Your task to perform on an android device: toggle improve location accuracy Image 0: 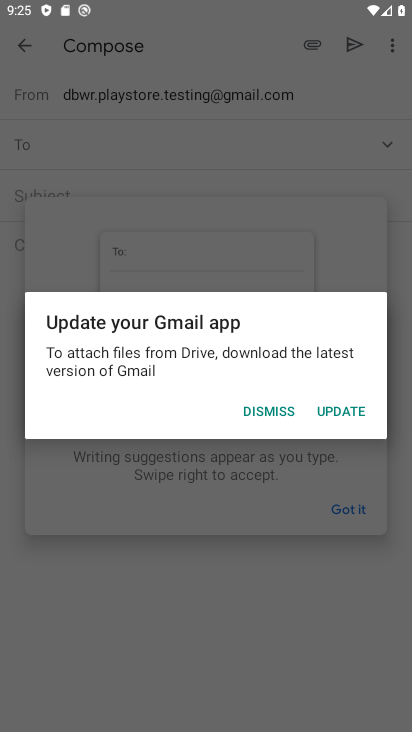
Step 0: press home button
Your task to perform on an android device: toggle improve location accuracy Image 1: 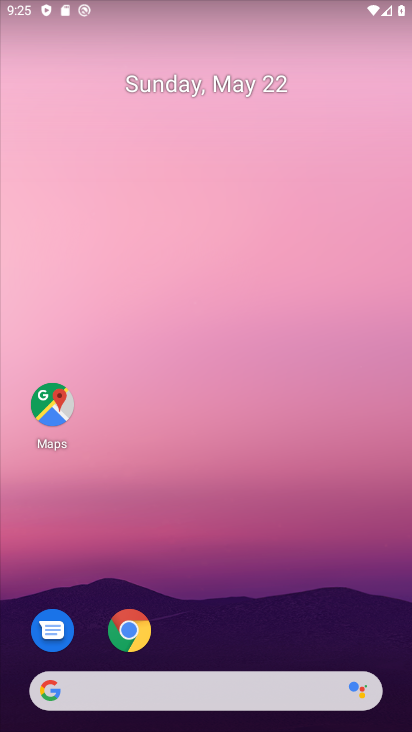
Step 1: drag from (377, 627) to (342, 231)
Your task to perform on an android device: toggle improve location accuracy Image 2: 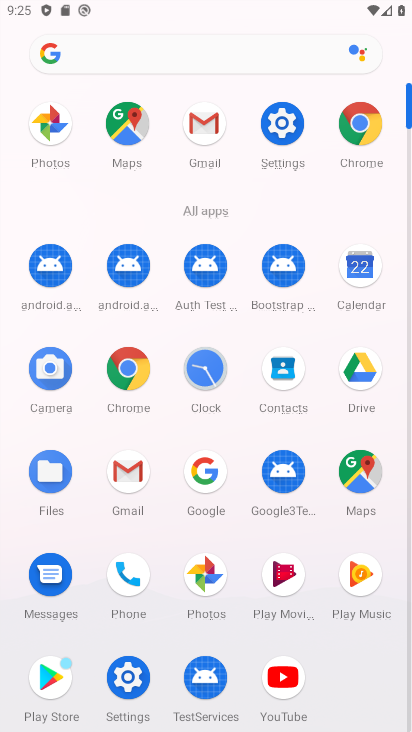
Step 2: click (145, 687)
Your task to perform on an android device: toggle improve location accuracy Image 3: 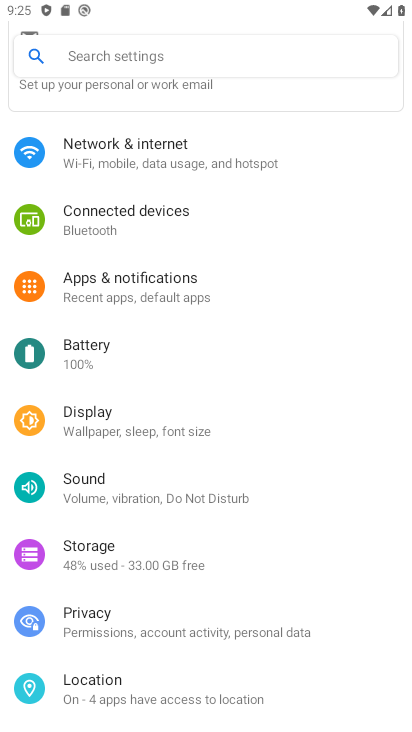
Step 3: drag from (322, 396) to (322, 522)
Your task to perform on an android device: toggle improve location accuracy Image 4: 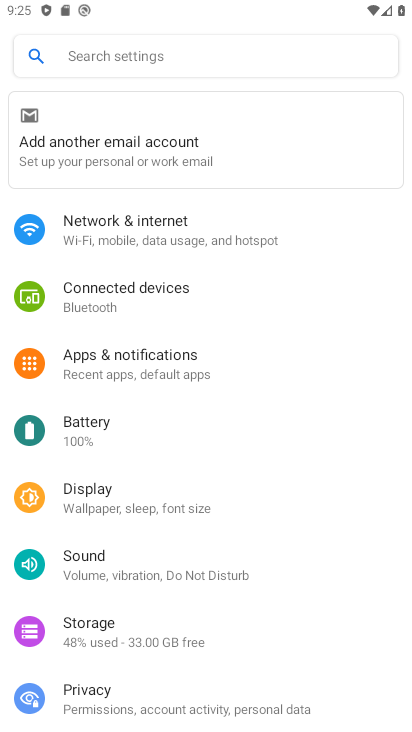
Step 4: drag from (334, 380) to (336, 467)
Your task to perform on an android device: toggle improve location accuracy Image 5: 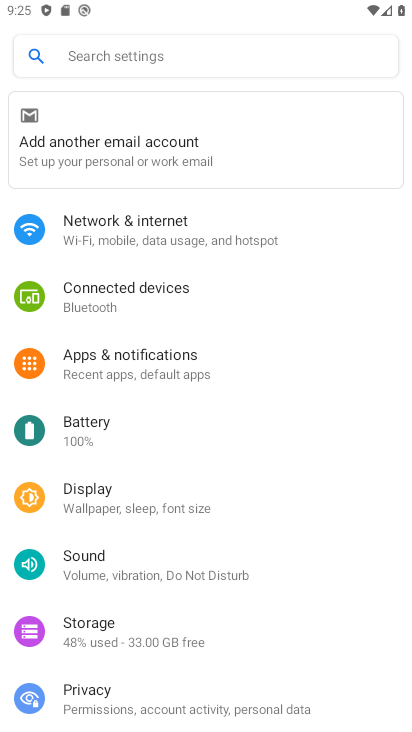
Step 5: drag from (339, 360) to (337, 475)
Your task to perform on an android device: toggle improve location accuracy Image 6: 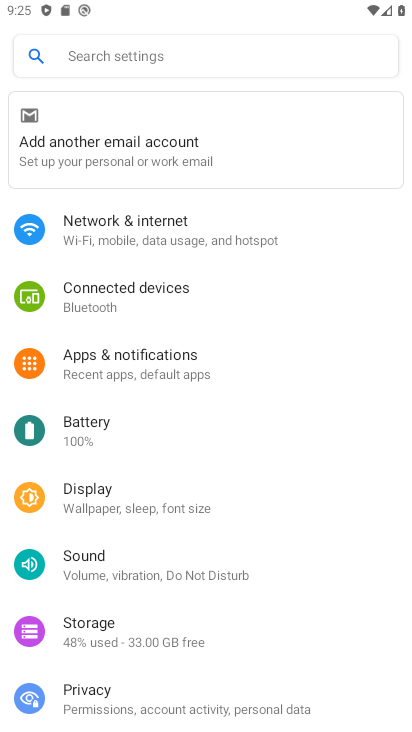
Step 6: drag from (341, 590) to (347, 466)
Your task to perform on an android device: toggle improve location accuracy Image 7: 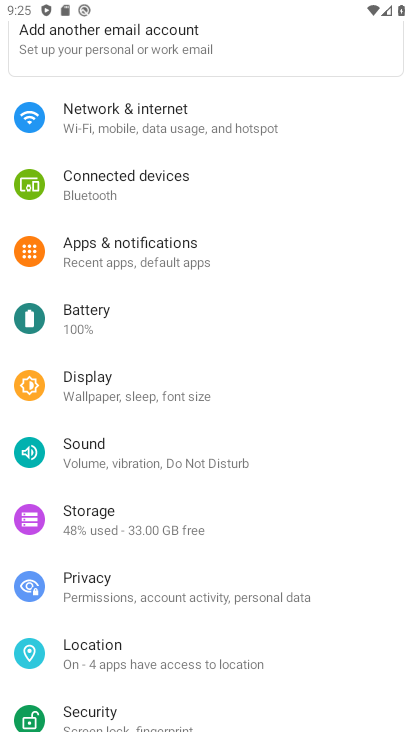
Step 7: drag from (342, 514) to (349, 402)
Your task to perform on an android device: toggle improve location accuracy Image 8: 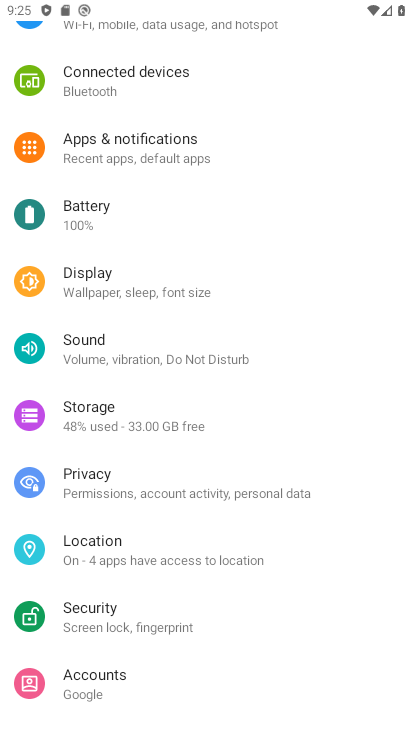
Step 8: drag from (358, 540) to (362, 440)
Your task to perform on an android device: toggle improve location accuracy Image 9: 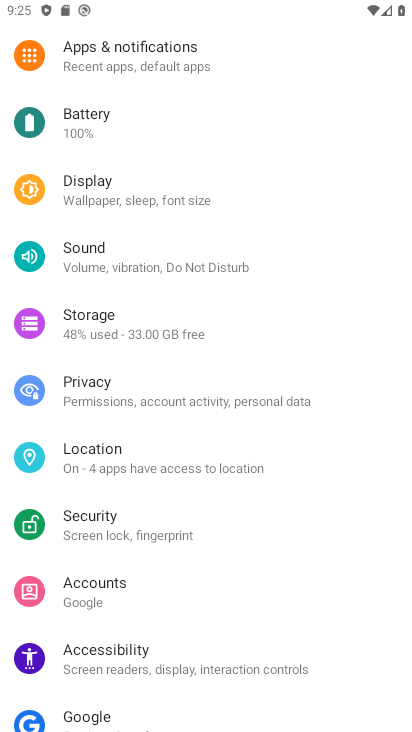
Step 9: drag from (364, 544) to (369, 454)
Your task to perform on an android device: toggle improve location accuracy Image 10: 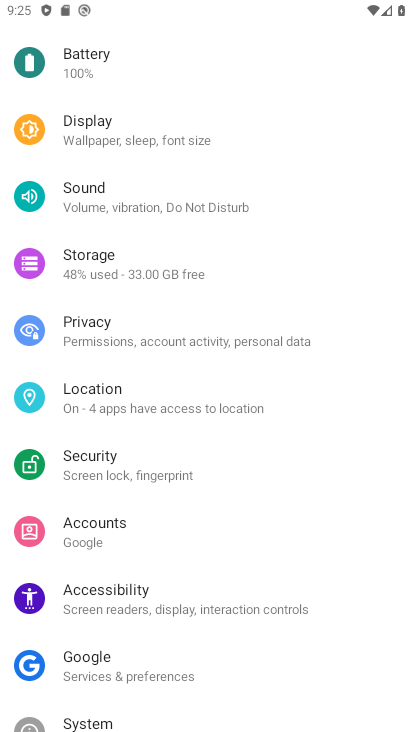
Step 10: drag from (373, 519) to (371, 464)
Your task to perform on an android device: toggle improve location accuracy Image 11: 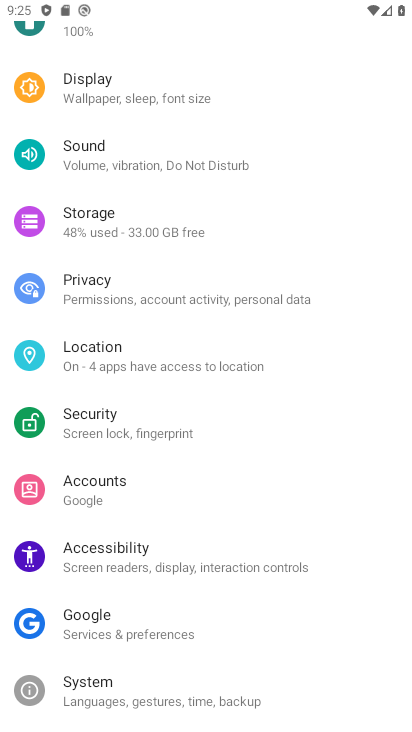
Step 11: drag from (360, 526) to (363, 470)
Your task to perform on an android device: toggle improve location accuracy Image 12: 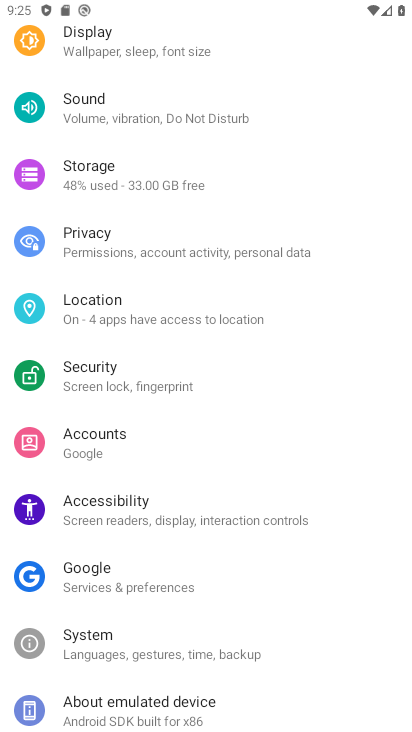
Step 12: click (248, 320)
Your task to perform on an android device: toggle improve location accuracy Image 13: 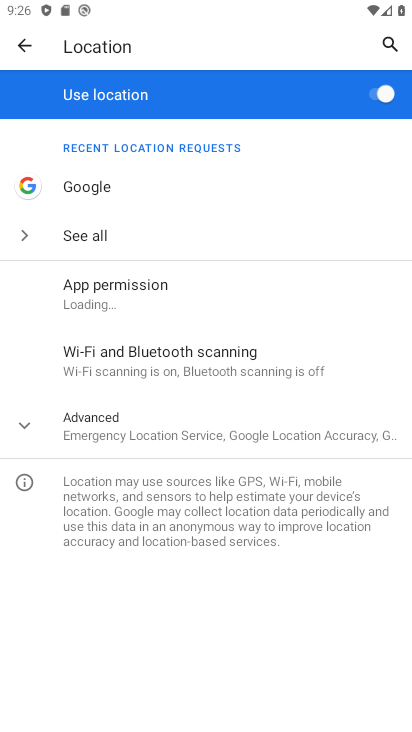
Step 13: click (302, 442)
Your task to perform on an android device: toggle improve location accuracy Image 14: 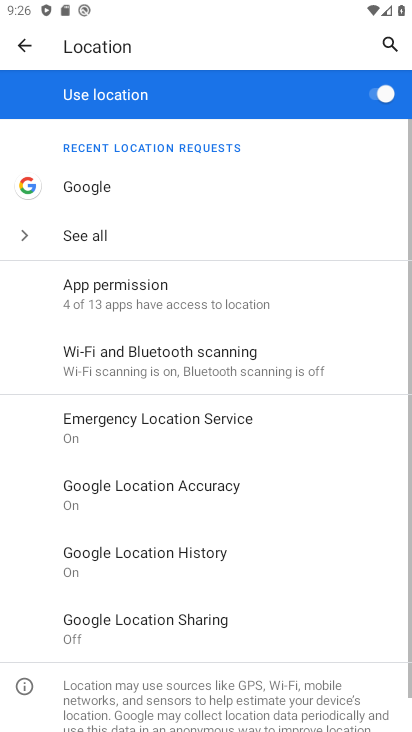
Step 14: drag from (335, 575) to (331, 436)
Your task to perform on an android device: toggle improve location accuracy Image 15: 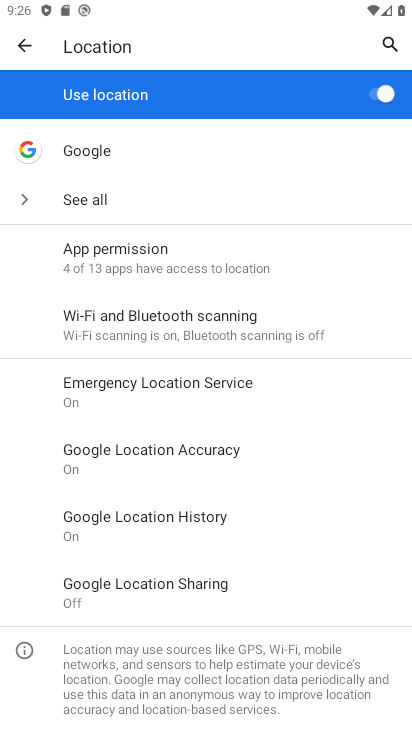
Step 15: click (234, 459)
Your task to perform on an android device: toggle improve location accuracy Image 16: 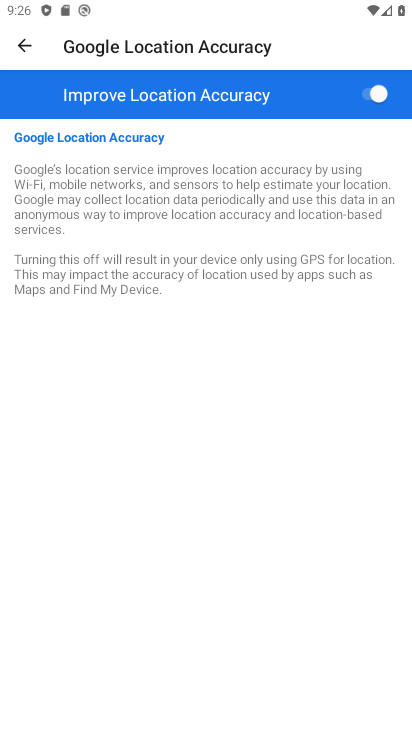
Step 16: click (364, 92)
Your task to perform on an android device: toggle improve location accuracy Image 17: 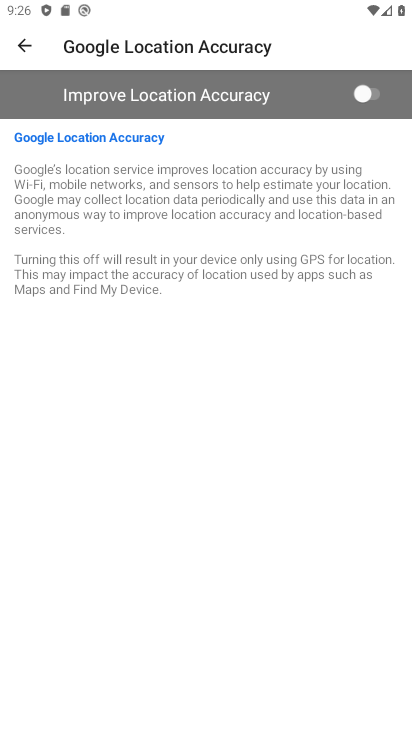
Step 17: task complete